Your task to perform on an android device: turn off smart reply in the gmail app Image 0: 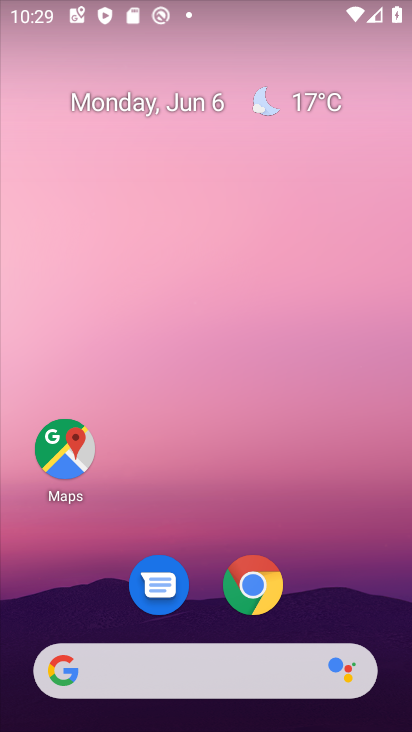
Step 0: drag from (214, 502) to (256, 4)
Your task to perform on an android device: turn off smart reply in the gmail app Image 1: 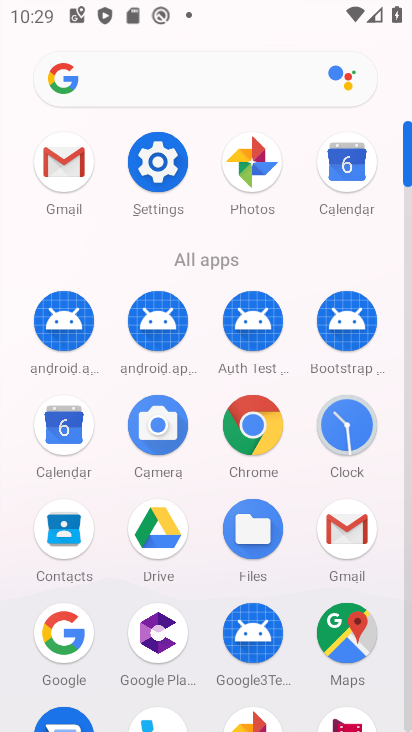
Step 1: click (75, 154)
Your task to perform on an android device: turn off smart reply in the gmail app Image 2: 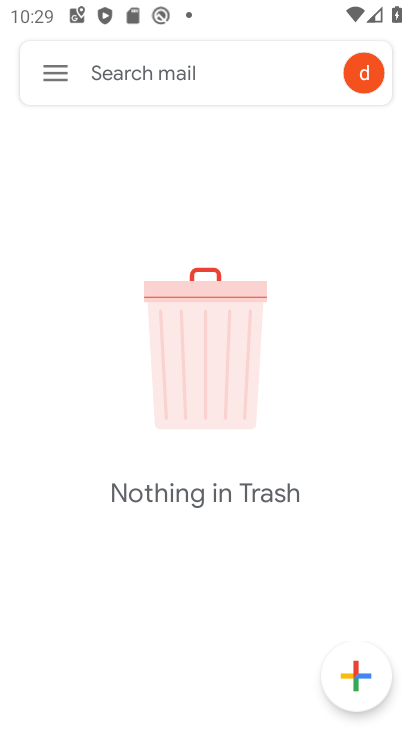
Step 2: click (53, 74)
Your task to perform on an android device: turn off smart reply in the gmail app Image 3: 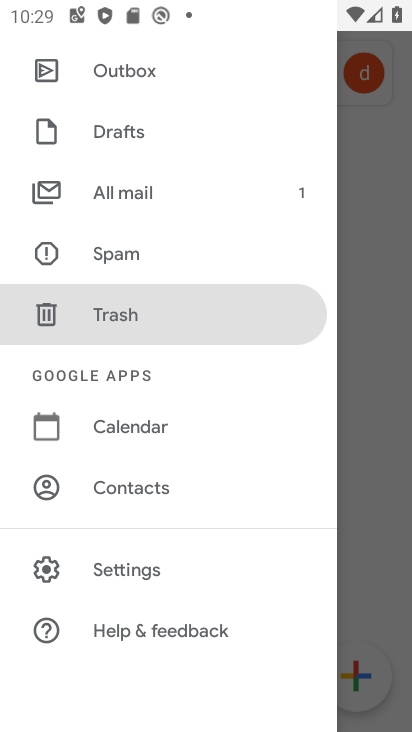
Step 3: click (151, 570)
Your task to perform on an android device: turn off smart reply in the gmail app Image 4: 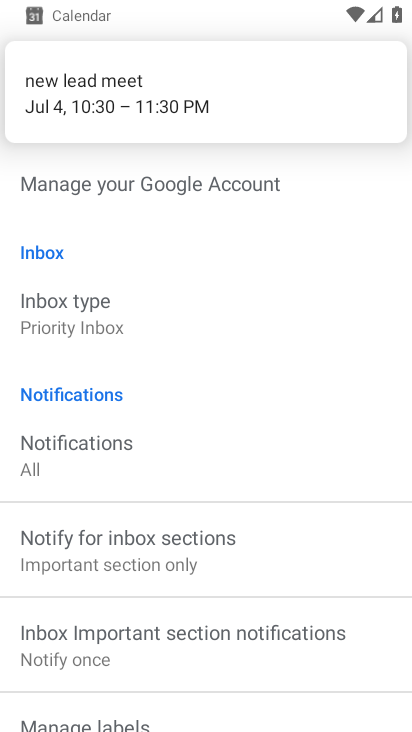
Step 4: drag from (237, 413) to (206, 193)
Your task to perform on an android device: turn off smart reply in the gmail app Image 5: 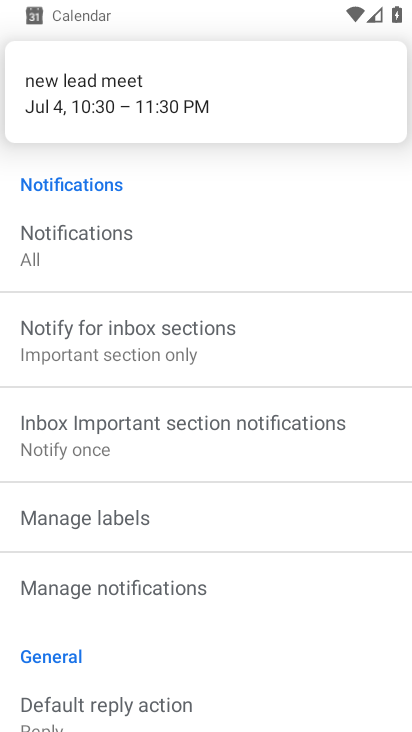
Step 5: drag from (206, 462) to (223, 202)
Your task to perform on an android device: turn off smart reply in the gmail app Image 6: 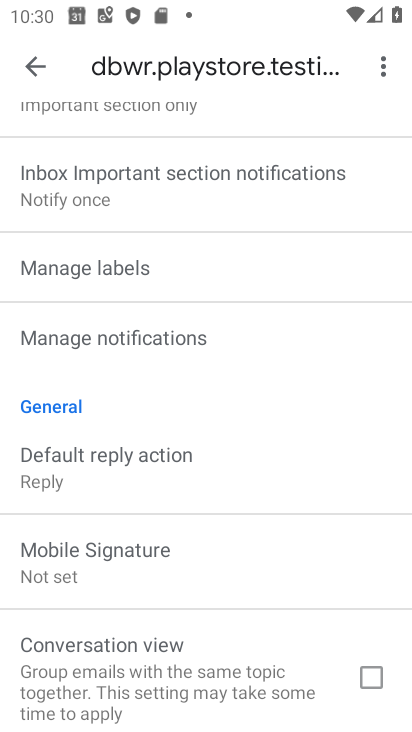
Step 6: drag from (218, 547) to (248, 157)
Your task to perform on an android device: turn off smart reply in the gmail app Image 7: 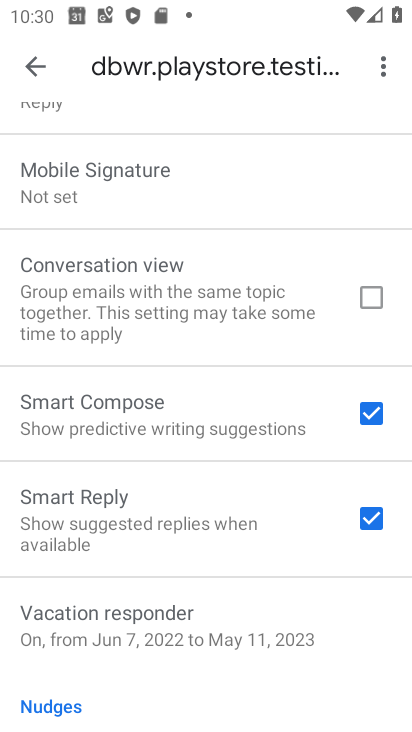
Step 7: click (375, 524)
Your task to perform on an android device: turn off smart reply in the gmail app Image 8: 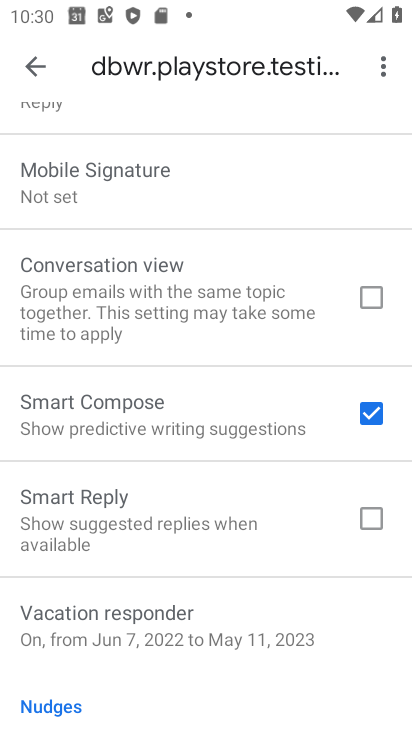
Step 8: task complete